Your task to perform on an android device: Go to eBay Image 0: 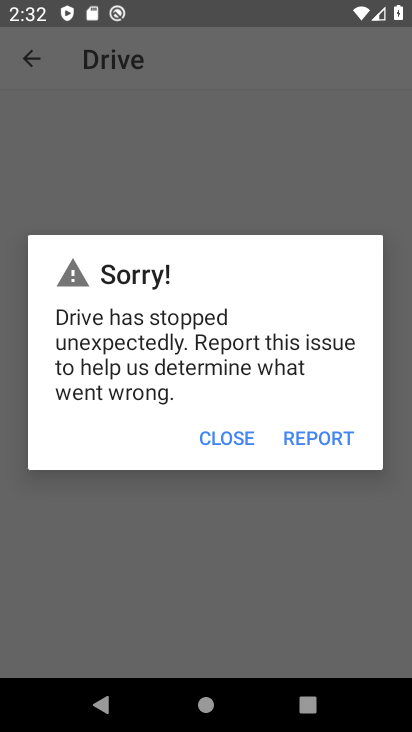
Step 0: press home button
Your task to perform on an android device: Go to eBay Image 1: 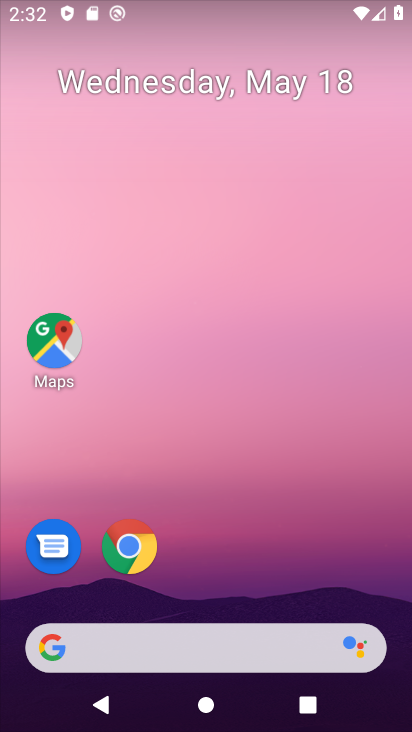
Step 1: click (130, 545)
Your task to perform on an android device: Go to eBay Image 2: 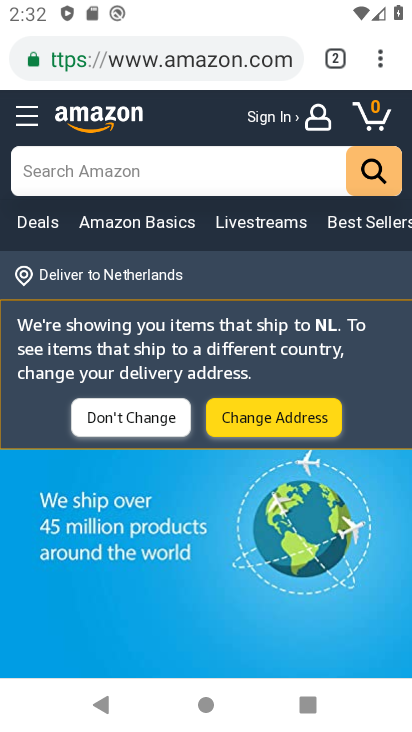
Step 2: click (376, 65)
Your task to perform on an android device: Go to eBay Image 3: 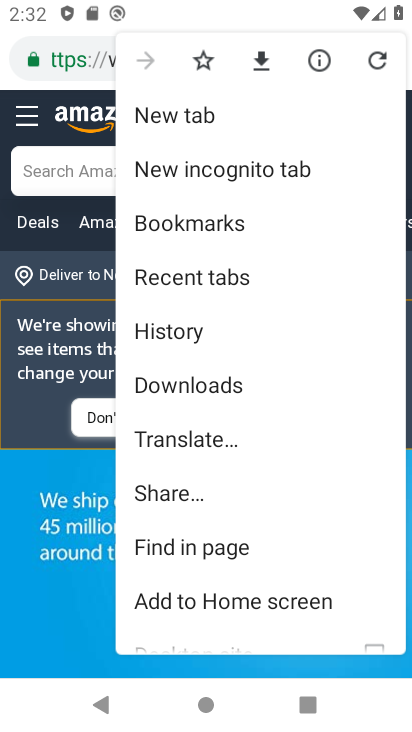
Step 3: click (191, 110)
Your task to perform on an android device: Go to eBay Image 4: 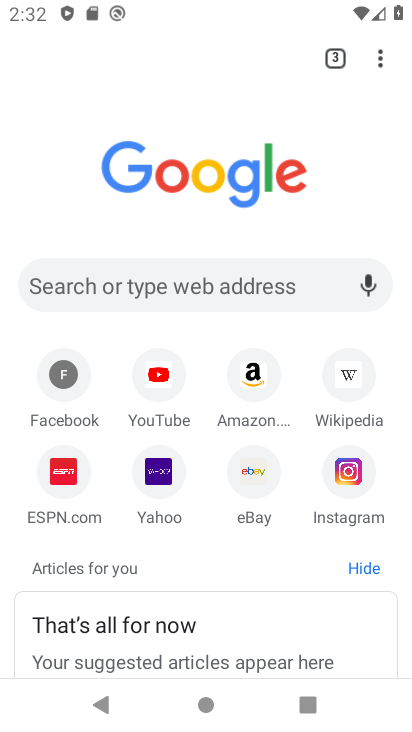
Step 4: click (254, 469)
Your task to perform on an android device: Go to eBay Image 5: 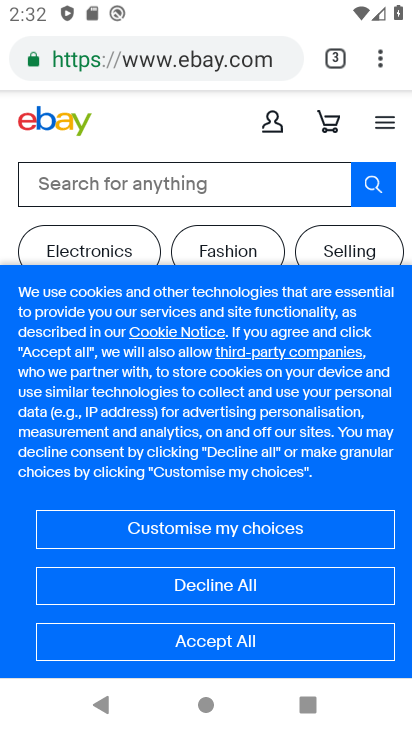
Step 5: task complete